Your task to perform on an android device: turn off smart reply in the gmail app Image 0: 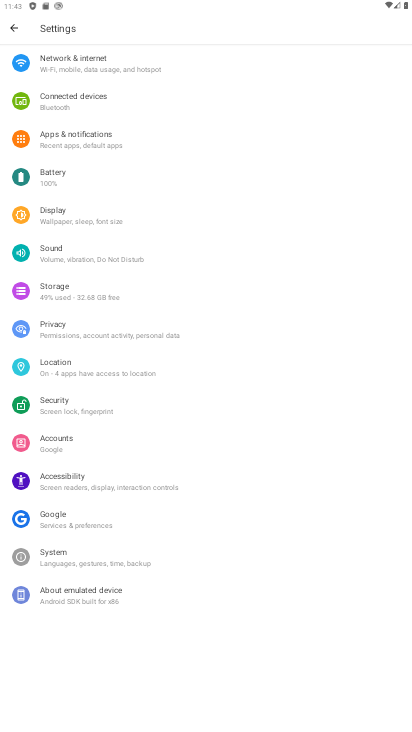
Step 0: press home button
Your task to perform on an android device: turn off smart reply in the gmail app Image 1: 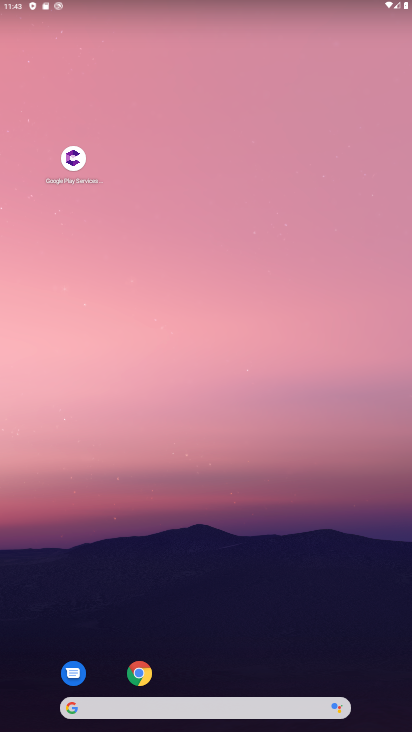
Step 1: drag from (233, 667) to (240, 91)
Your task to perform on an android device: turn off smart reply in the gmail app Image 2: 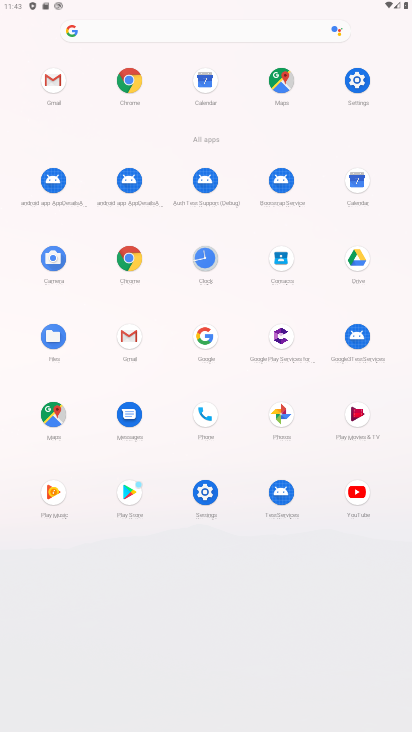
Step 2: click (53, 79)
Your task to perform on an android device: turn off smart reply in the gmail app Image 3: 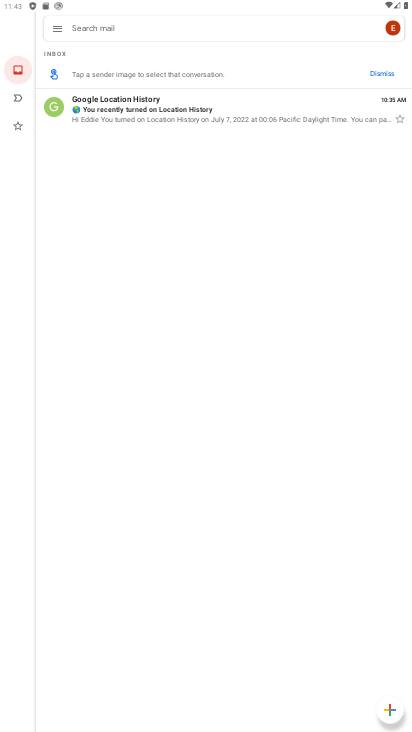
Step 3: click (58, 24)
Your task to perform on an android device: turn off smart reply in the gmail app Image 4: 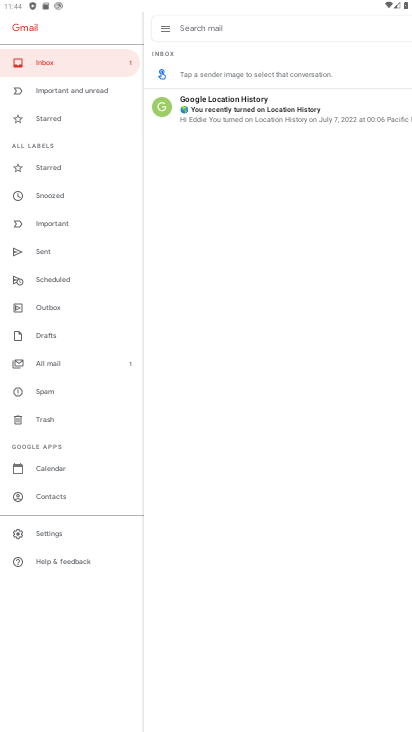
Step 4: click (58, 533)
Your task to perform on an android device: turn off smart reply in the gmail app Image 5: 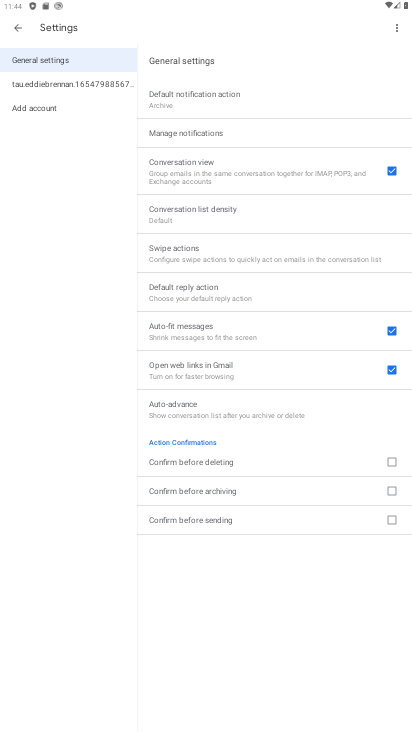
Step 5: click (88, 86)
Your task to perform on an android device: turn off smart reply in the gmail app Image 6: 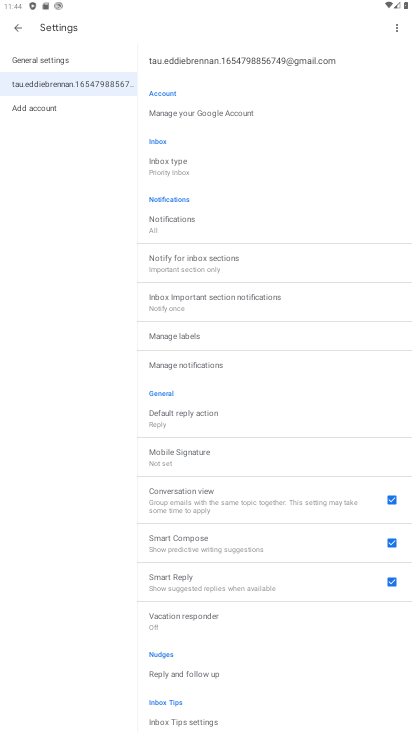
Step 6: click (392, 584)
Your task to perform on an android device: turn off smart reply in the gmail app Image 7: 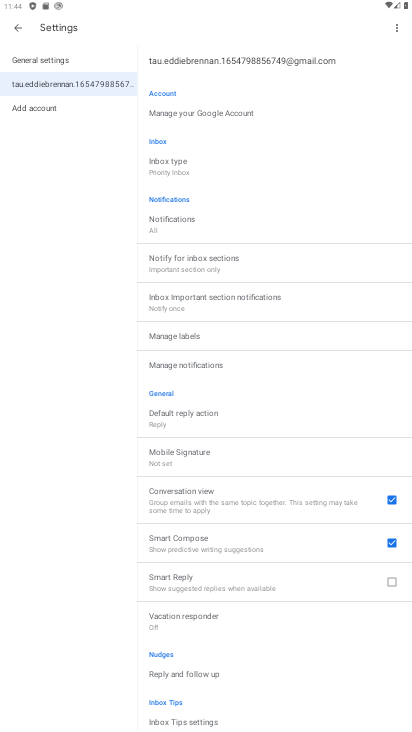
Step 7: task complete